Your task to perform on an android device: turn off data saver in the chrome app Image 0: 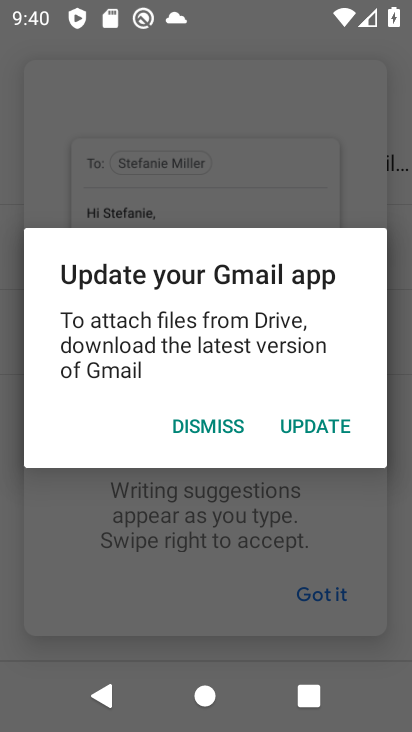
Step 0: press home button
Your task to perform on an android device: turn off data saver in the chrome app Image 1: 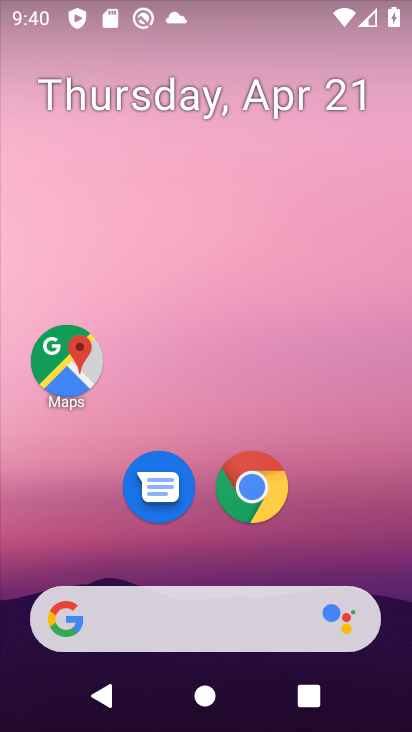
Step 1: drag from (361, 422) to (318, 212)
Your task to perform on an android device: turn off data saver in the chrome app Image 2: 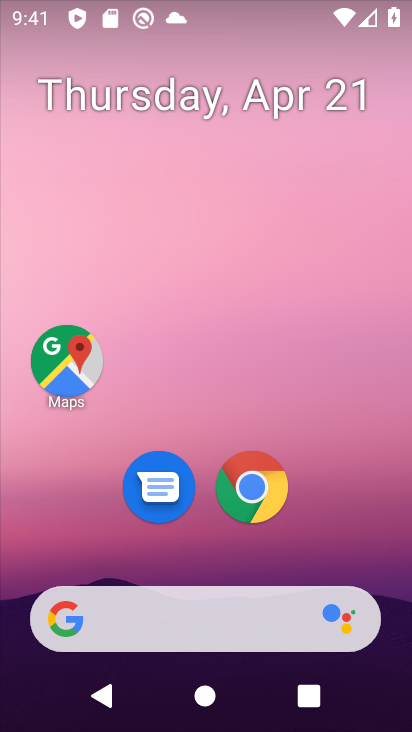
Step 2: drag from (391, 434) to (391, 237)
Your task to perform on an android device: turn off data saver in the chrome app Image 3: 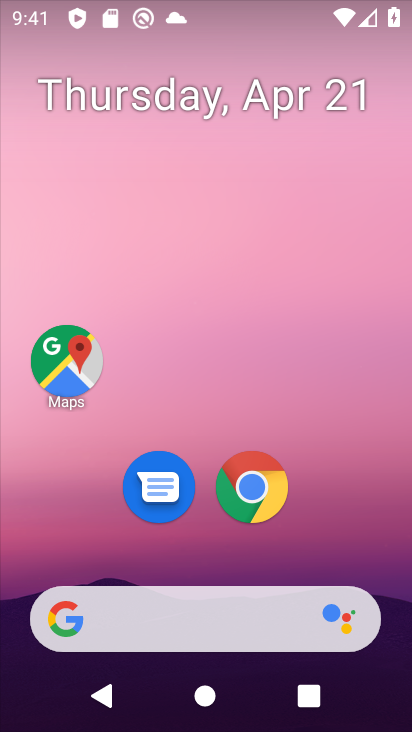
Step 3: click (373, 204)
Your task to perform on an android device: turn off data saver in the chrome app Image 4: 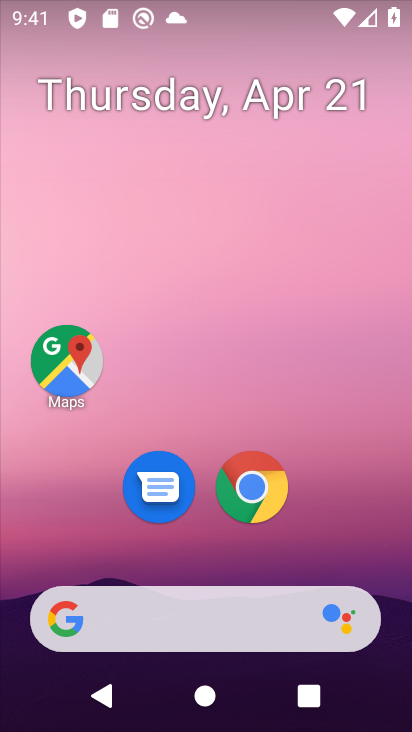
Step 4: click (252, 481)
Your task to perform on an android device: turn off data saver in the chrome app Image 5: 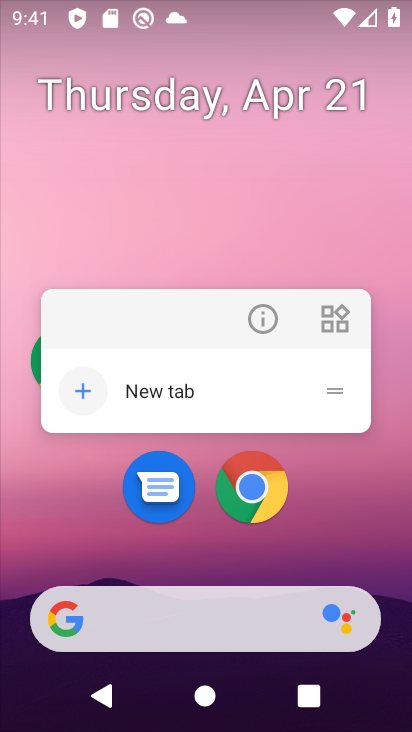
Step 5: click (252, 481)
Your task to perform on an android device: turn off data saver in the chrome app Image 6: 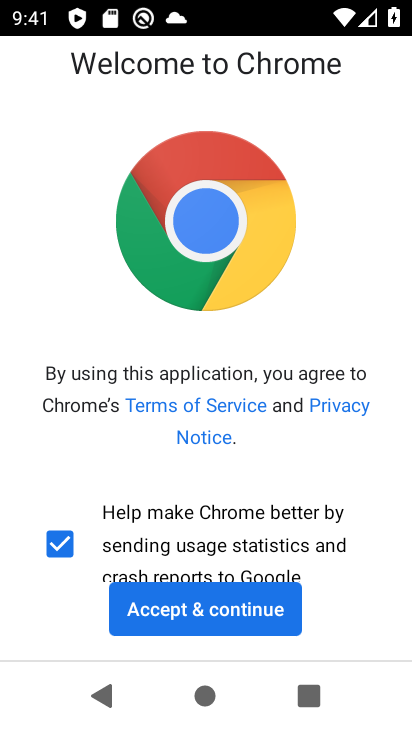
Step 6: click (237, 605)
Your task to perform on an android device: turn off data saver in the chrome app Image 7: 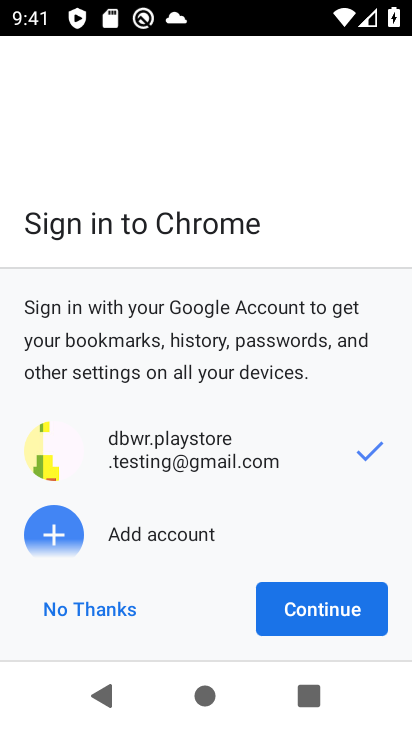
Step 7: click (321, 595)
Your task to perform on an android device: turn off data saver in the chrome app Image 8: 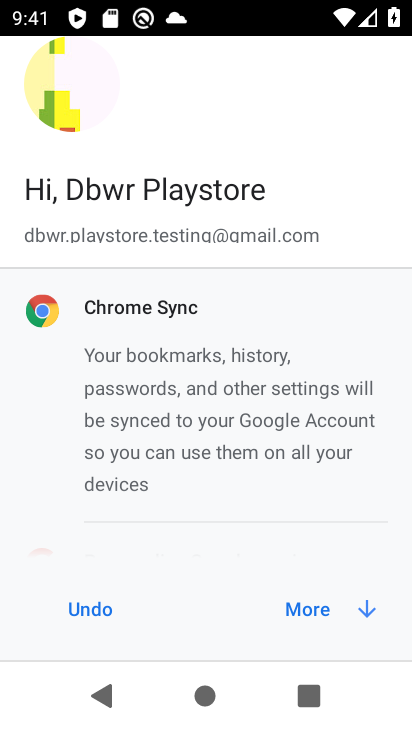
Step 8: click (302, 616)
Your task to perform on an android device: turn off data saver in the chrome app Image 9: 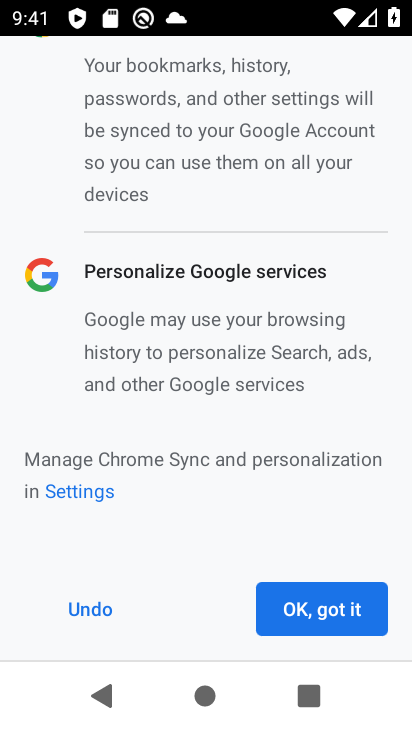
Step 9: click (302, 616)
Your task to perform on an android device: turn off data saver in the chrome app Image 10: 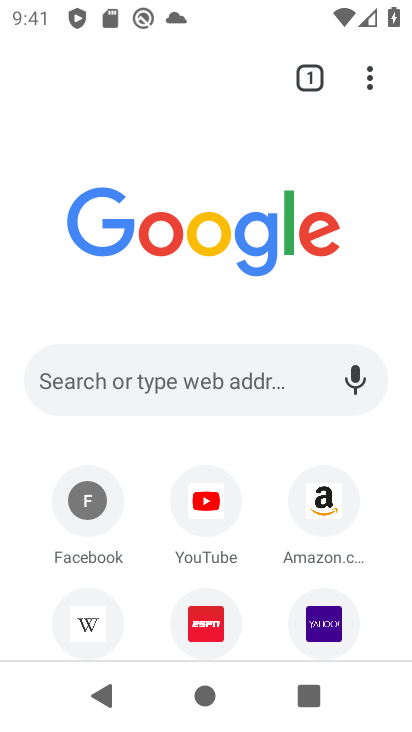
Step 10: click (366, 69)
Your task to perform on an android device: turn off data saver in the chrome app Image 11: 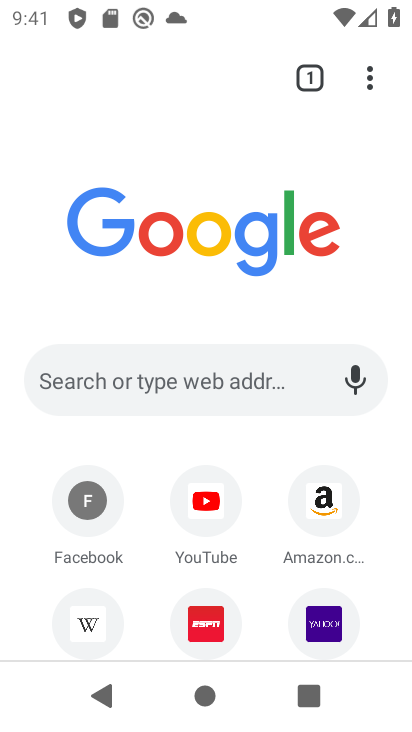
Step 11: click (366, 69)
Your task to perform on an android device: turn off data saver in the chrome app Image 12: 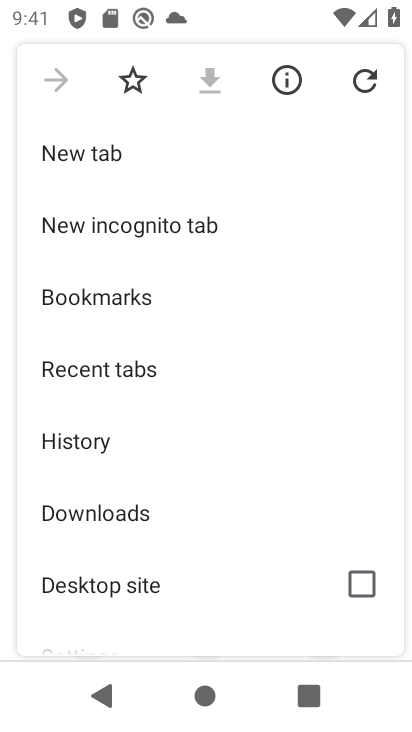
Step 12: drag from (247, 562) to (269, 298)
Your task to perform on an android device: turn off data saver in the chrome app Image 13: 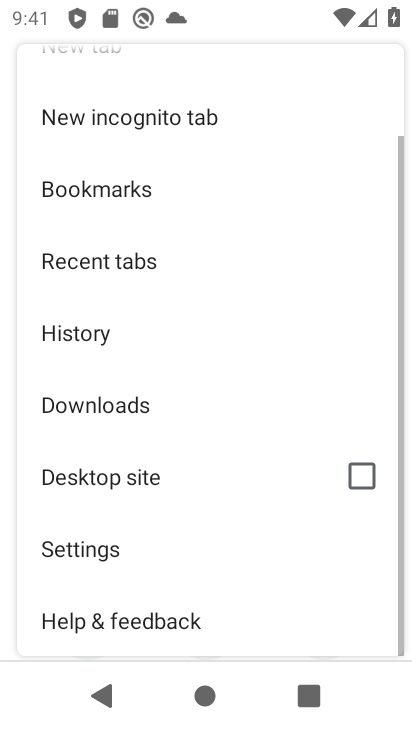
Step 13: click (93, 554)
Your task to perform on an android device: turn off data saver in the chrome app Image 14: 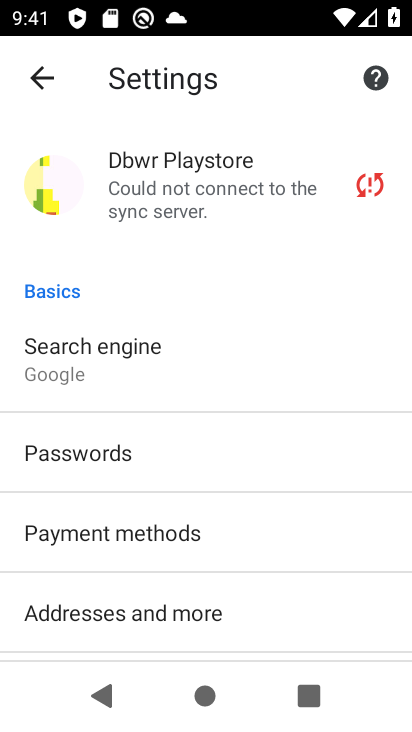
Step 14: click (343, 314)
Your task to perform on an android device: turn off data saver in the chrome app Image 15: 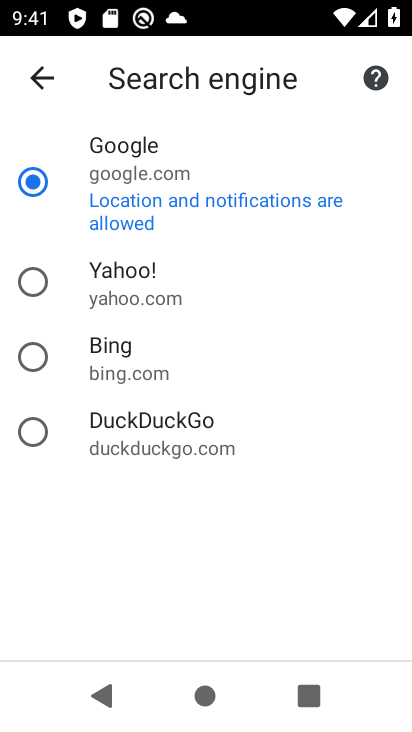
Step 15: drag from (330, 614) to (337, 349)
Your task to perform on an android device: turn off data saver in the chrome app Image 16: 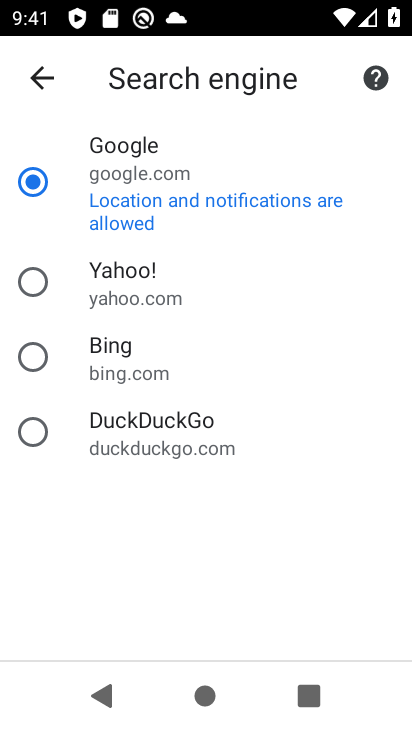
Step 16: click (32, 74)
Your task to perform on an android device: turn off data saver in the chrome app Image 17: 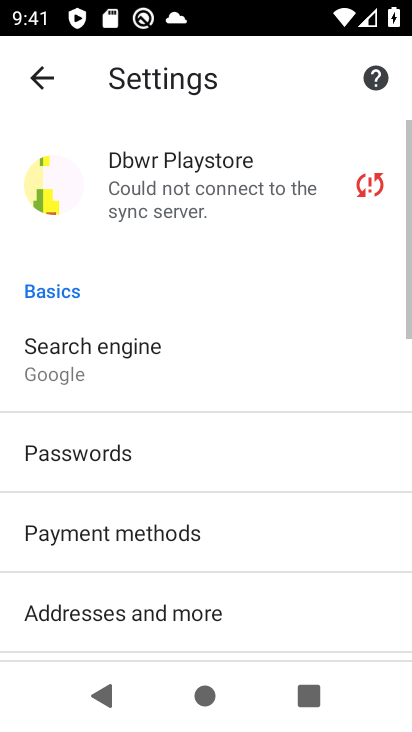
Step 17: drag from (324, 360) to (321, 323)
Your task to perform on an android device: turn off data saver in the chrome app Image 18: 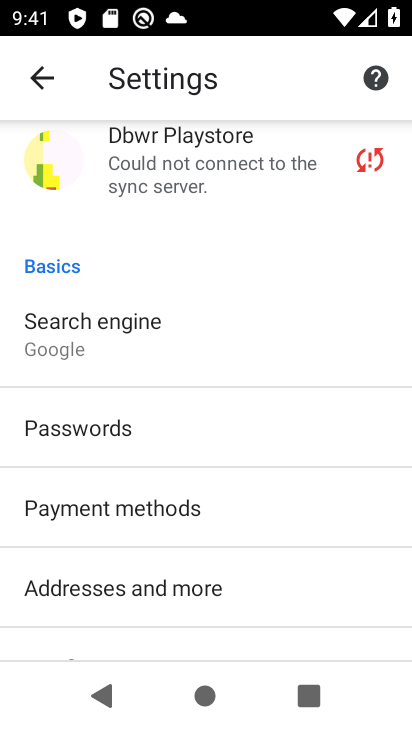
Step 18: drag from (315, 511) to (327, 311)
Your task to perform on an android device: turn off data saver in the chrome app Image 19: 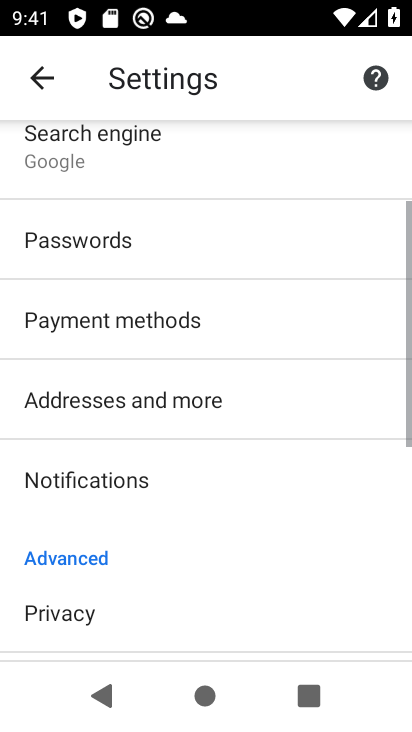
Step 19: click (318, 401)
Your task to perform on an android device: turn off data saver in the chrome app Image 20: 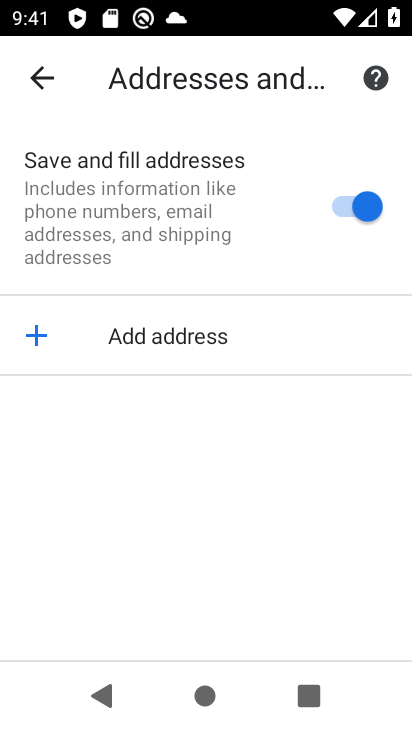
Step 20: drag from (310, 369) to (309, 335)
Your task to perform on an android device: turn off data saver in the chrome app Image 21: 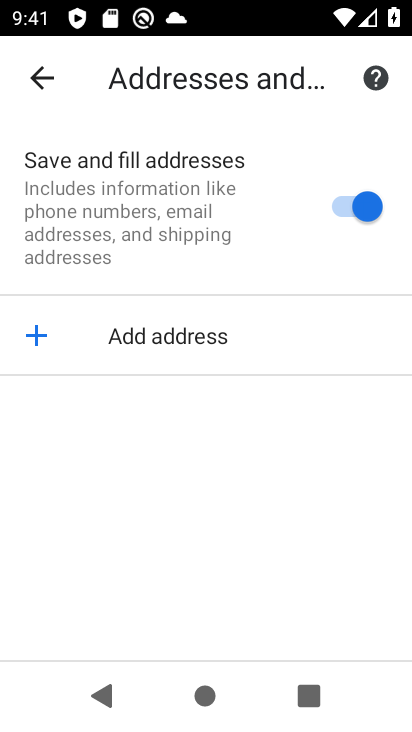
Step 21: click (45, 79)
Your task to perform on an android device: turn off data saver in the chrome app Image 22: 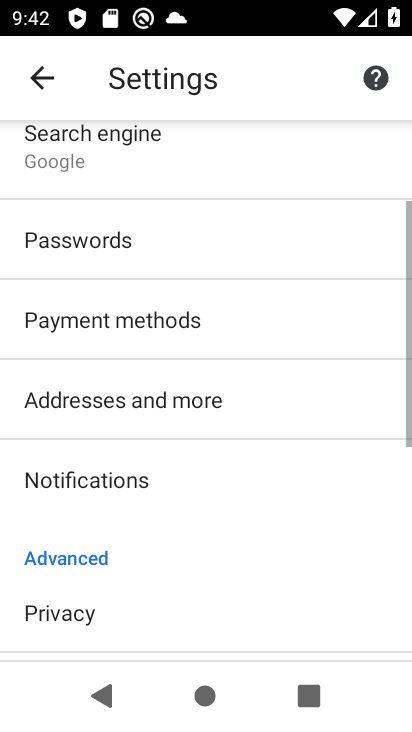
Step 22: drag from (315, 373) to (314, 305)
Your task to perform on an android device: turn off data saver in the chrome app Image 23: 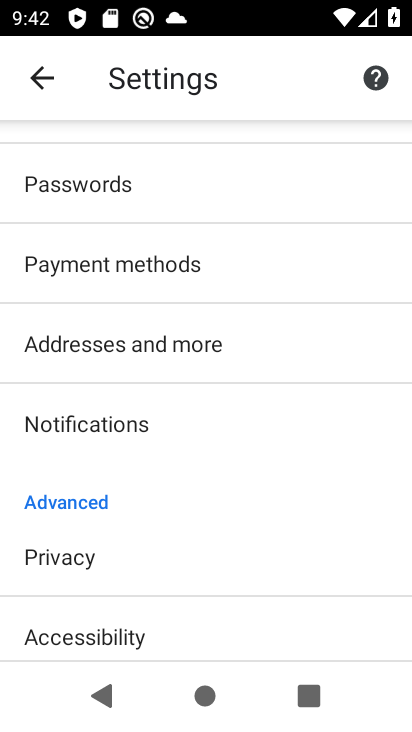
Step 23: drag from (310, 597) to (299, 315)
Your task to perform on an android device: turn off data saver in the chrome app Image 24: 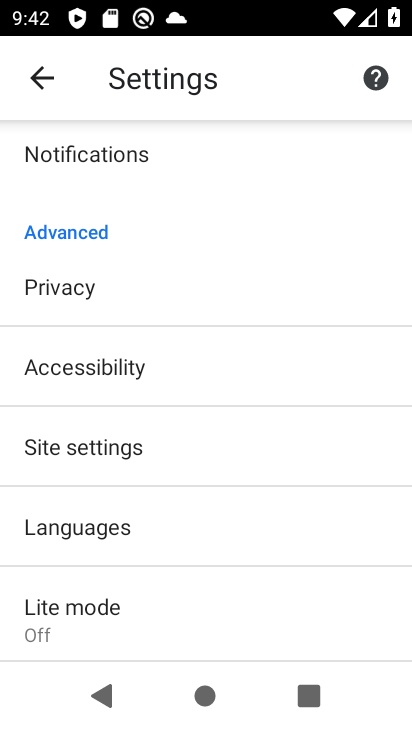
Step 24: click (112, 524)
Your task to perform on an android device: turn off data saver in the chrome app Image 25: 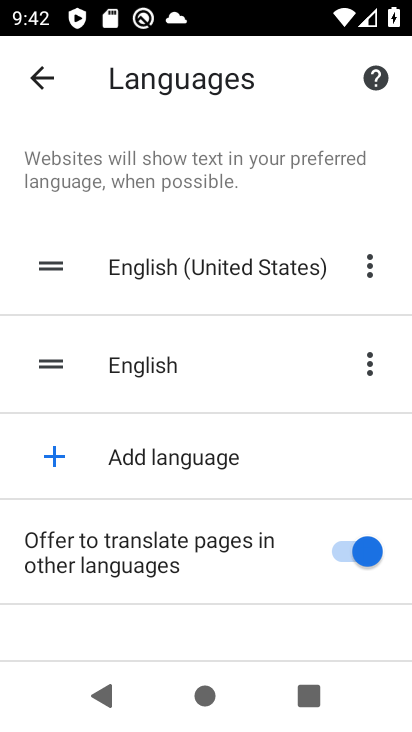
Step 25: click (329, 551)
Your task to perform on an android device: turn off data saver in the chrome app Image 26: 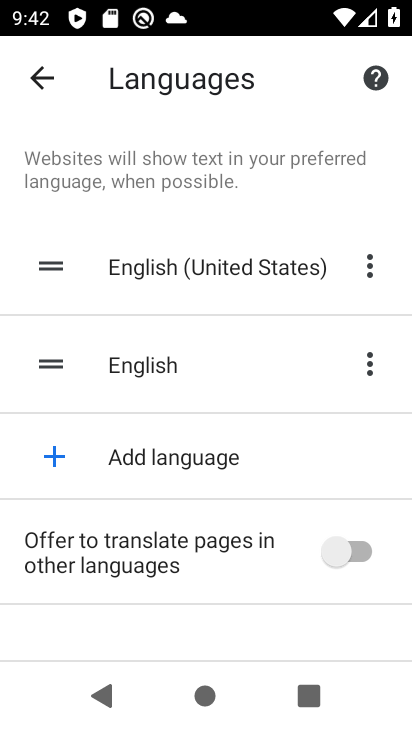
Step 26: task complete